Your task to perform on an android device: install app "TextNow: Call + Text Unlimited" Image 0: 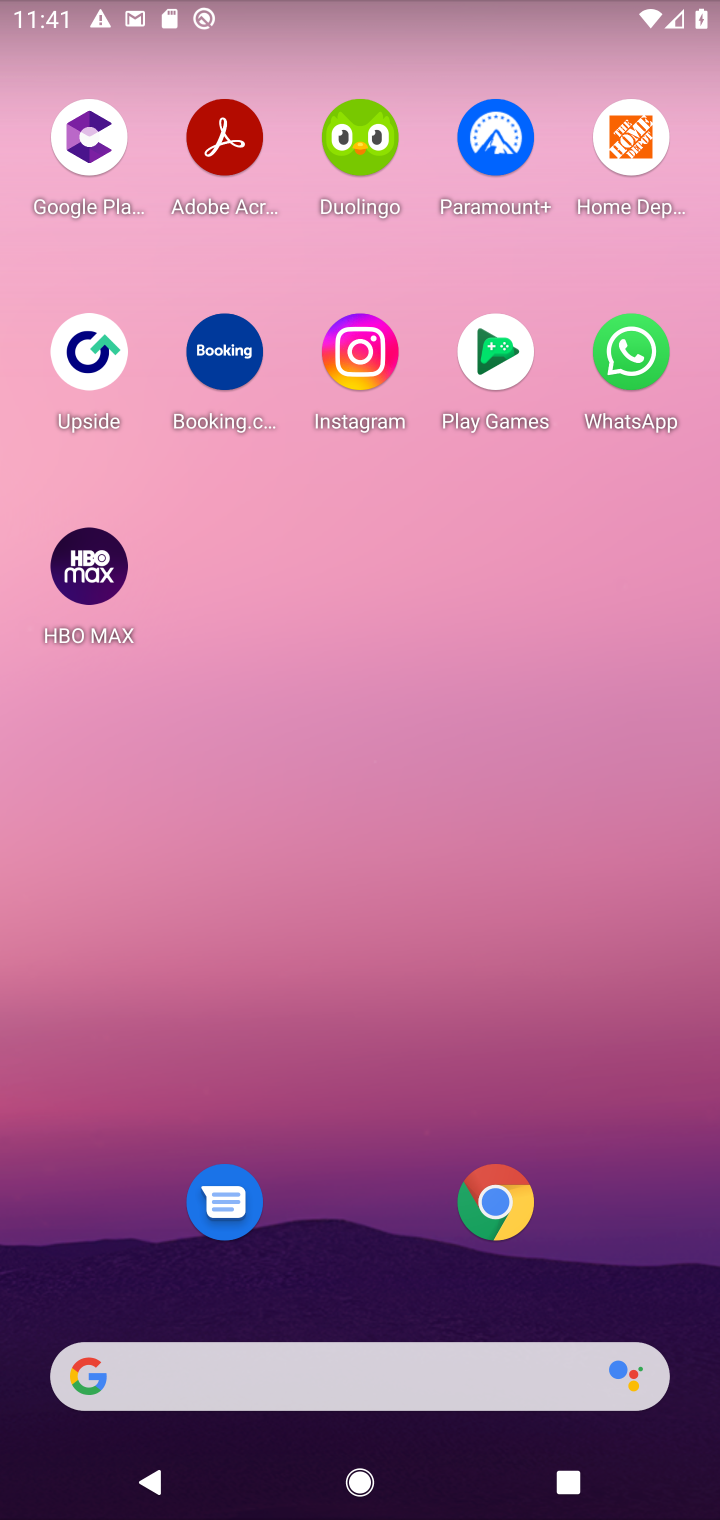
Step 0: drag from (367, 997) to (338, 139)
Your task to perform on an android device: install app "TextNow: Call + Text Unlimited" Image 1: 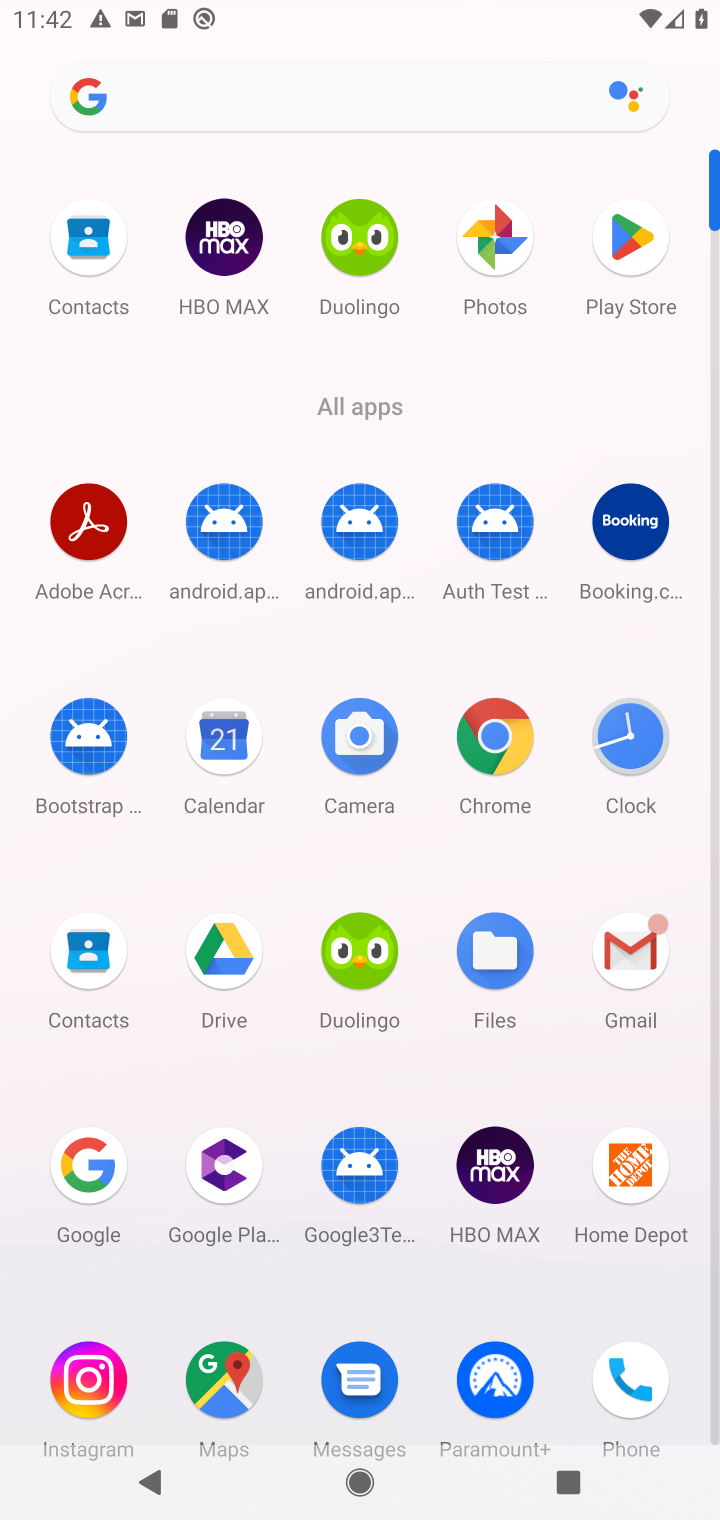
Step 1: click (619, 236)
Your task to perform on an android device: install app "TextNow: Call + Text Unlimited" Image 2: 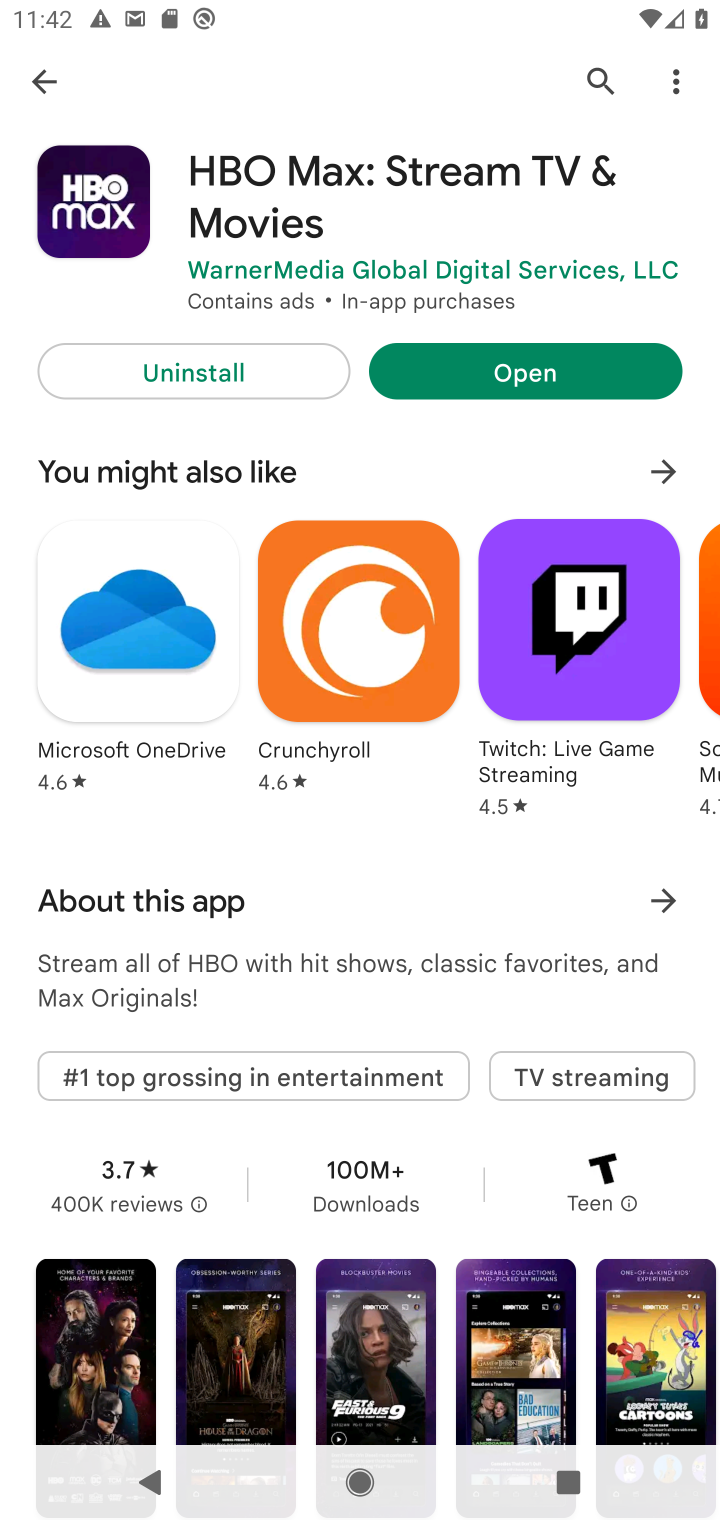
Step 2: click (594, 73)
Your task to perform on an android device: install app "TextNow: Call + Text Unlimited" Image 3: 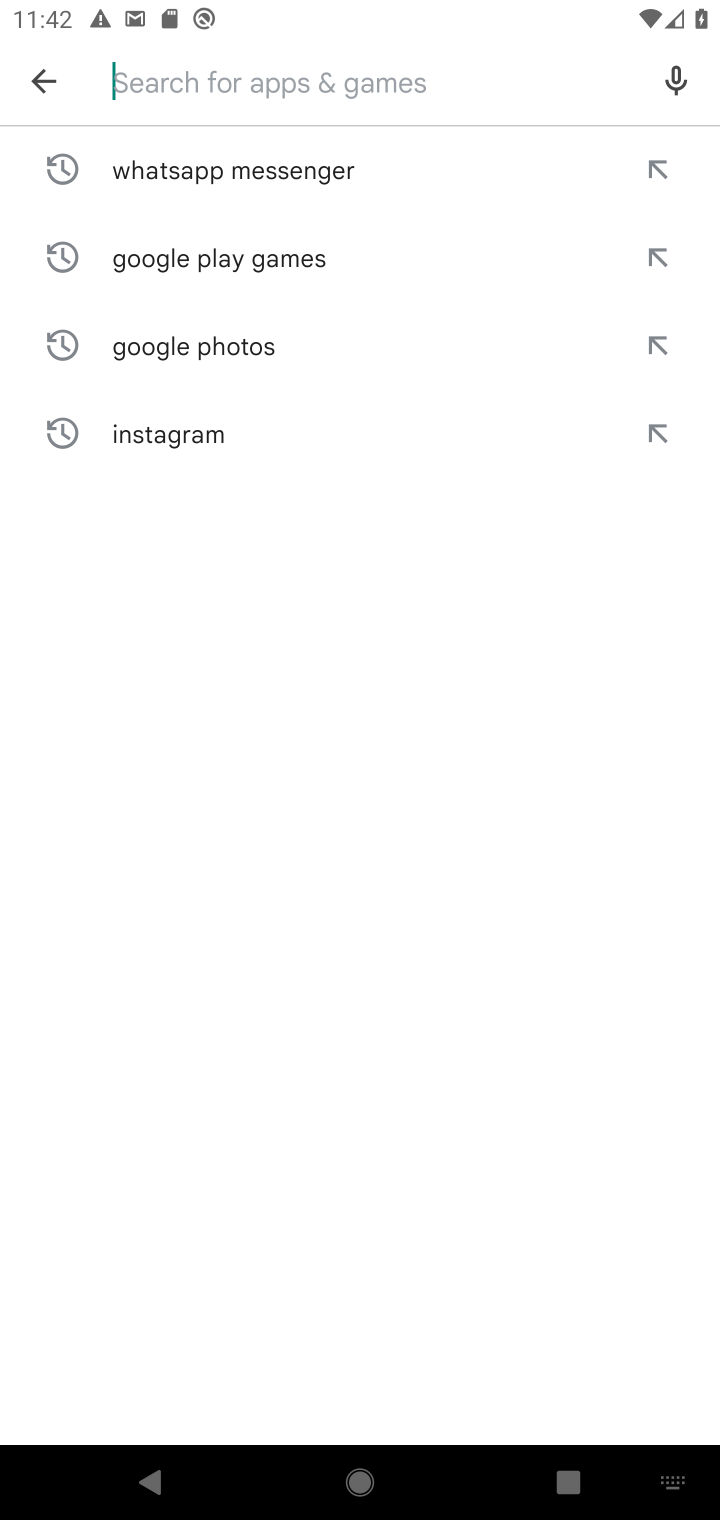
Step 3: type "TextNow: Call + Text Unlimited"
Your task to perform on an android device: install app "TextNow: Call + Text Unlimited" Image 4: 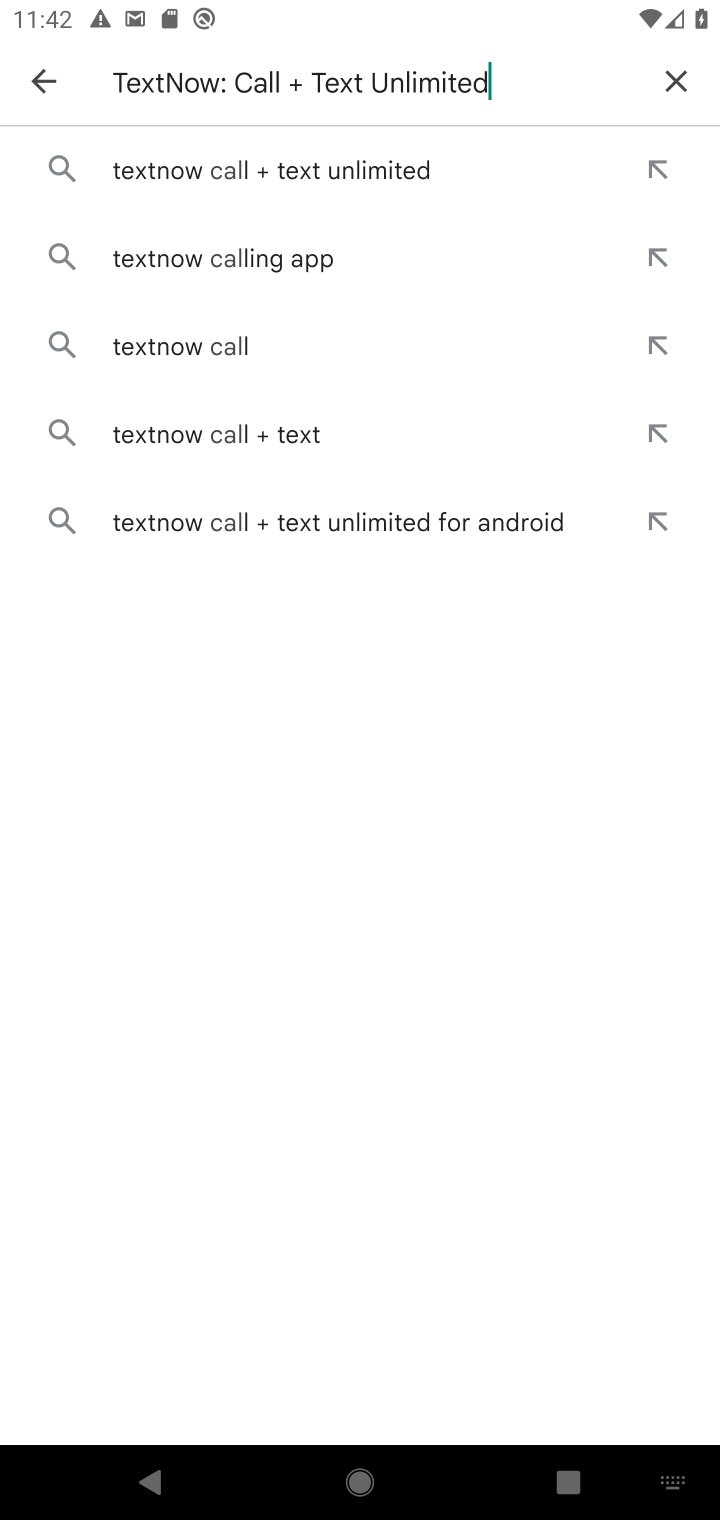
Step 4: type ""
Your task to perform on an android device: install app "TextNow: Call + Text Unlimited" Image 5: 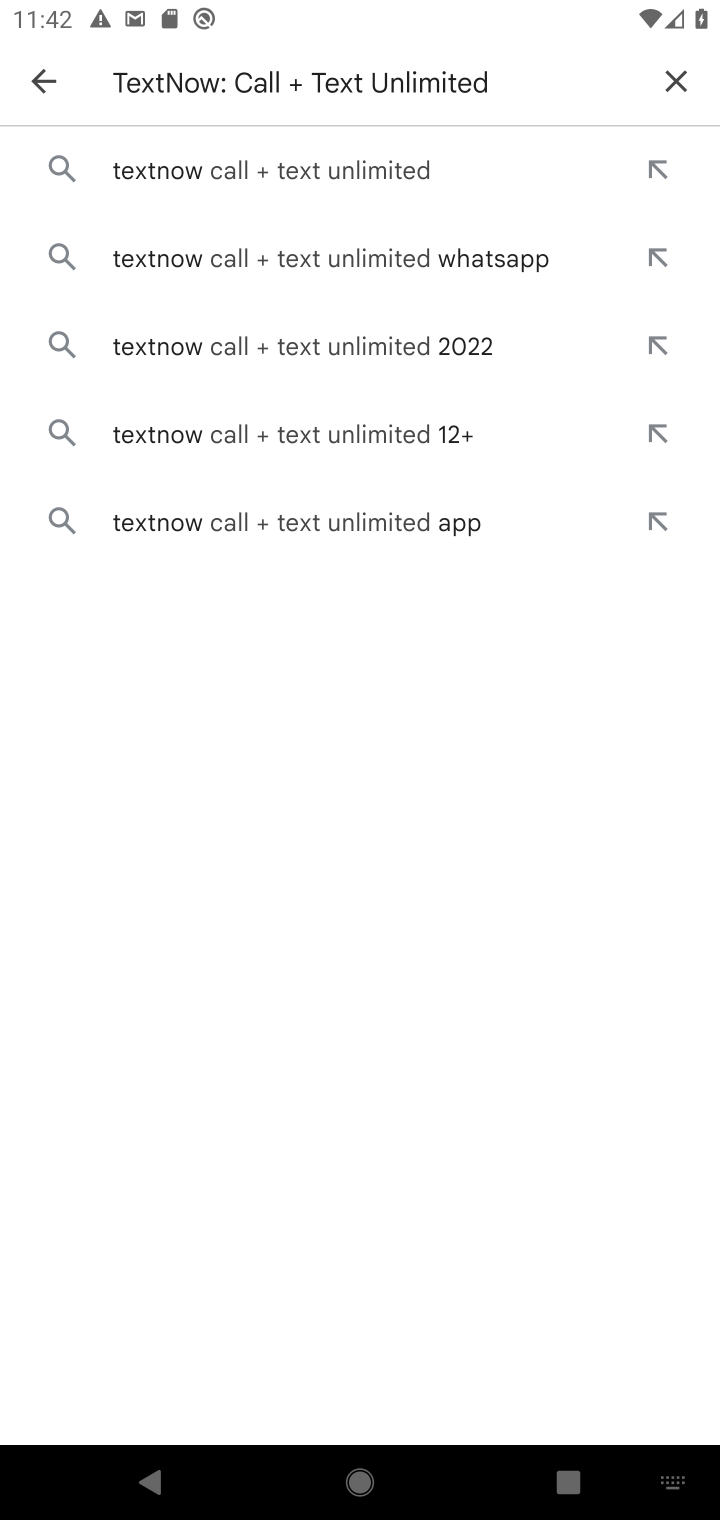
Step 5: click (368, 169)
Your task to perform on an android device: install app "TextNow: Call + Text Unlimited" Image 6: 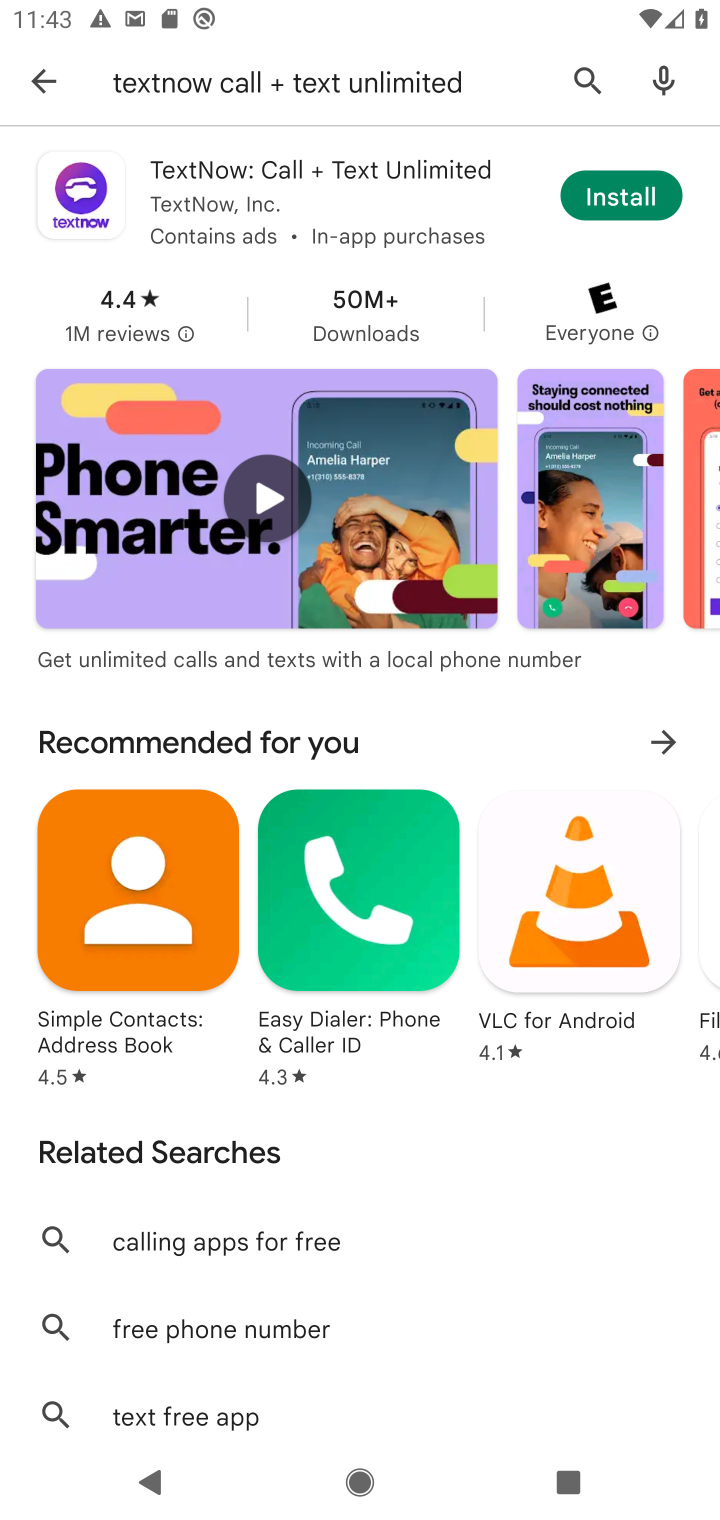
Step 6: click (627, 193)
Your task to perform on an android device: install app "TextNow: Call + Text Unlimited" Image 7: 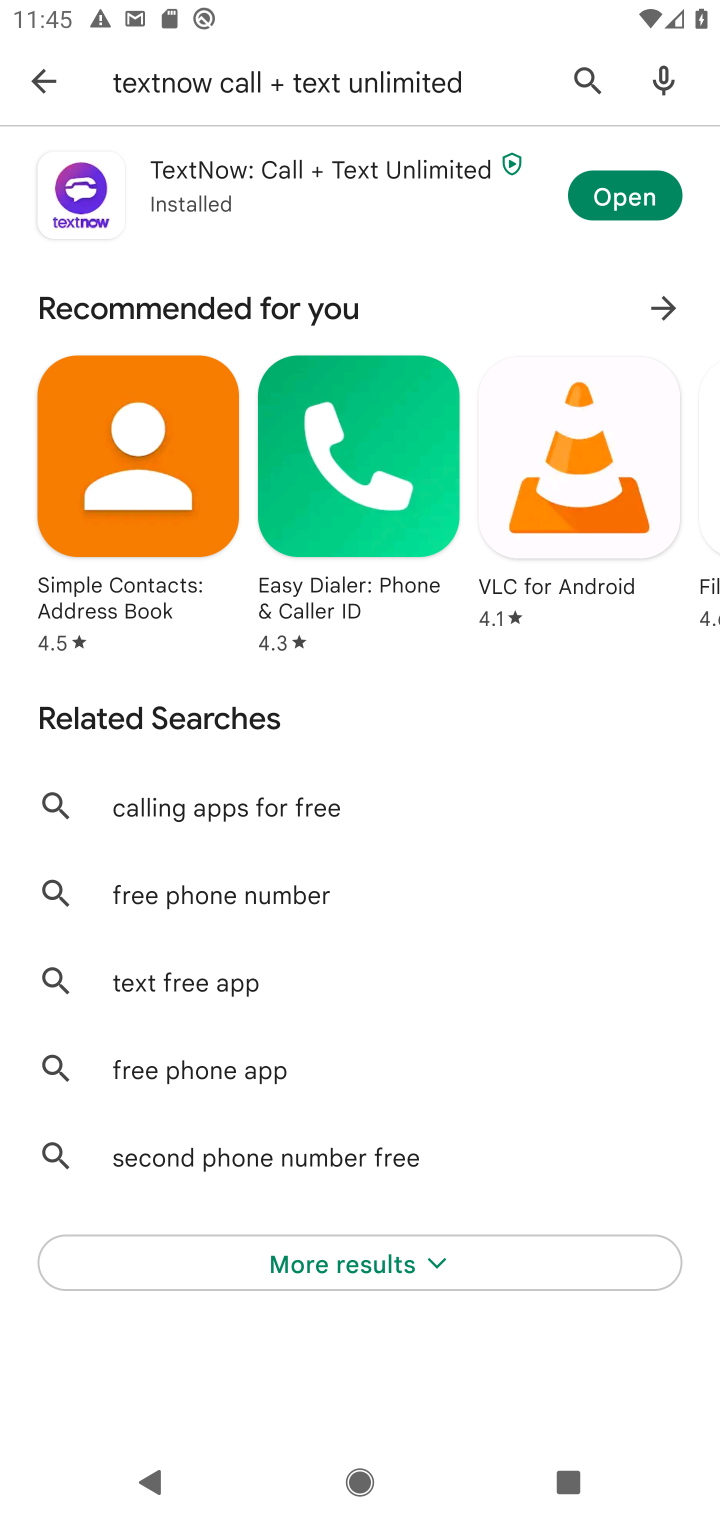
Step 7: task complete